Your task to perform on an android device: Open Yahoo.com Image 0: 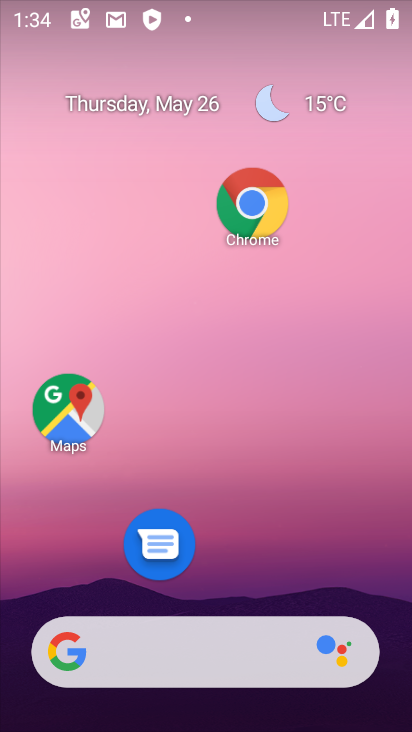
Step 0: click (247, 659)
Your task to perform on an android device: Open Yahoo.com Image 1: 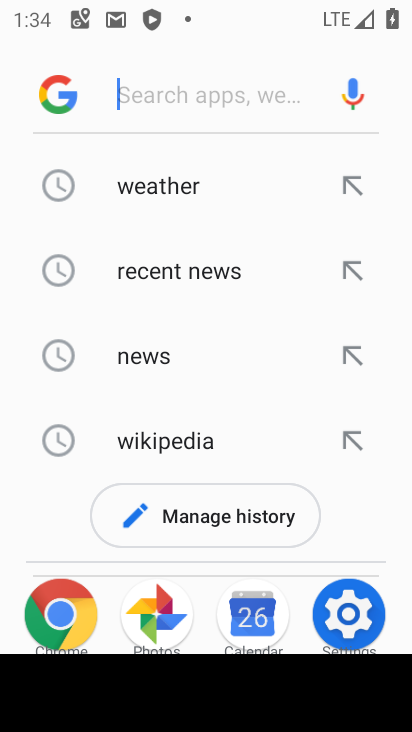
Step 1: type "yahoo.com"
Your task to perform on an android device: Open Yahoo.com Image 2: 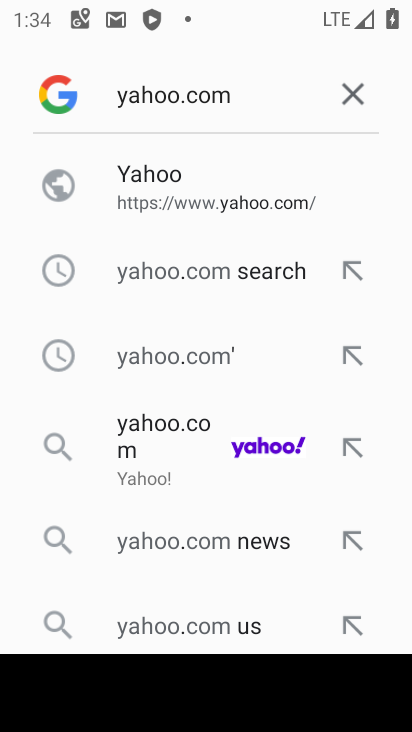
Step 2: click (296, 207)
Your task to perform on an android device: Open Yahoo.com Image 3: 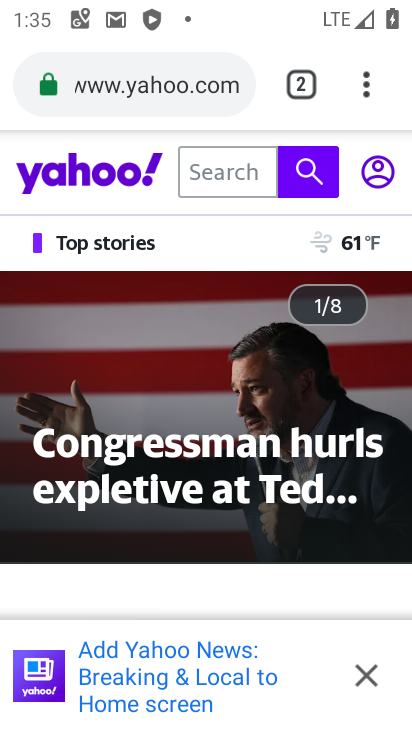
Step 3: task complete